Your task to perform on an android device: Add "razer blade" to the cart on walmart.com Image 0: 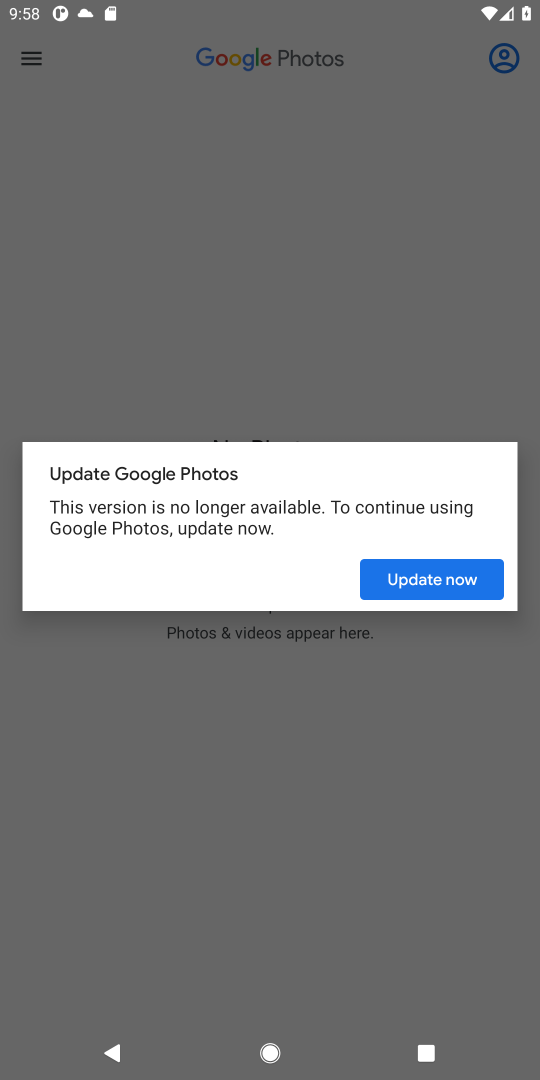
Step 0: press home button
Your task to perform on an android device: Add "razer blade" to the cart on walmart.com Image 1: 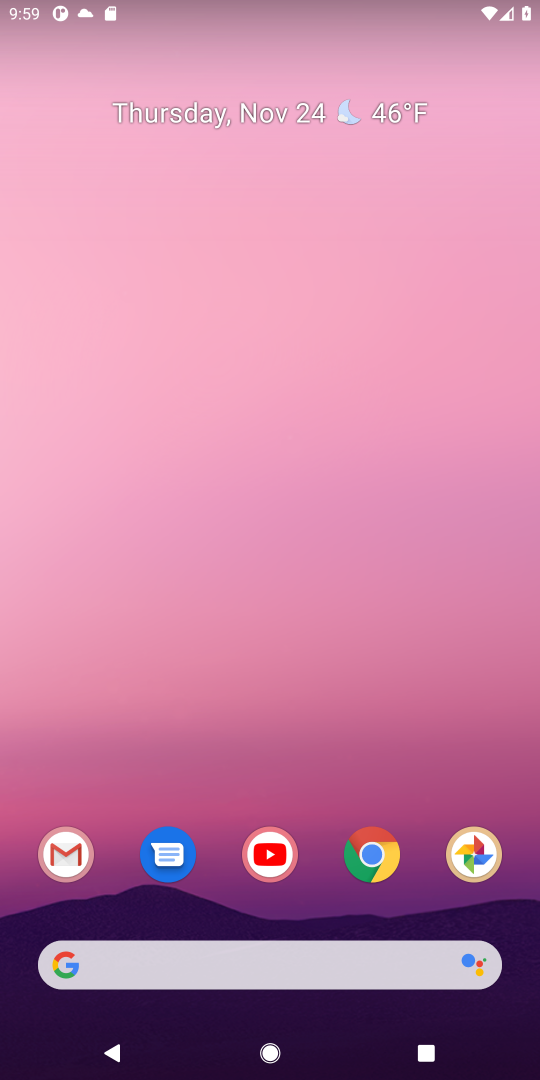
Step 1: click (381, 859)
Your task to perform on an android device: Add "razer blade" to the cart on walmart.com Image 2: 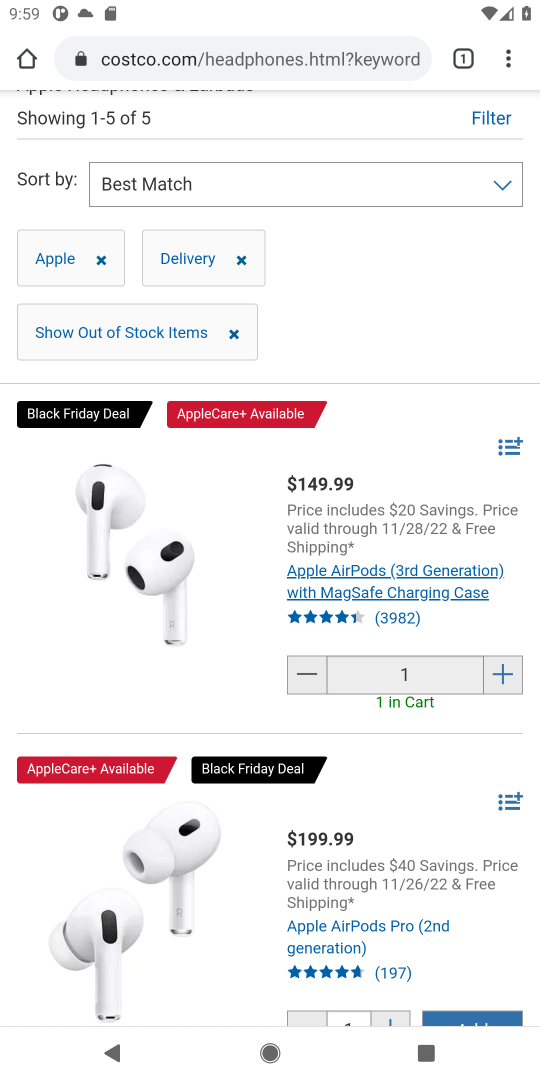
Step 2: click (210, 59)
Your task to perform on an android device: Add "razer blade" to the cart on walmart.com Image 3: 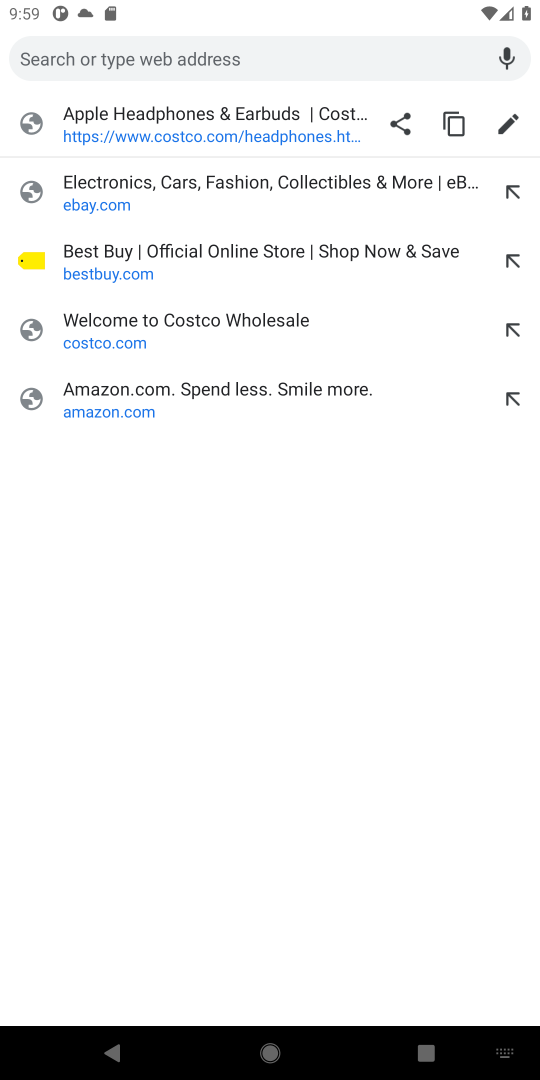
Step 3: type "walmart.com"
Your task to perform on an android device: Add "razer blade" to the cart on walmart.com Image 4: 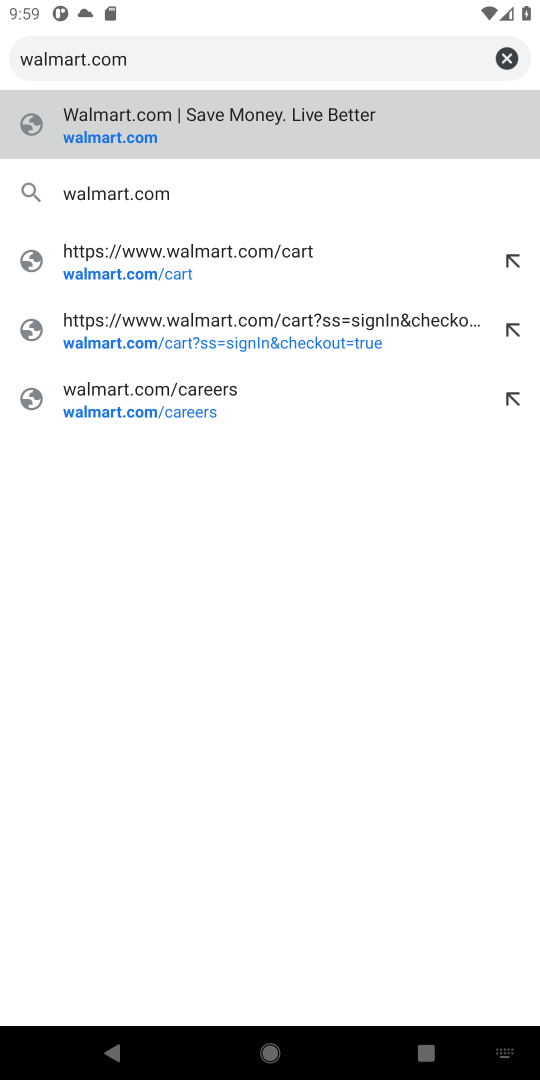
Step 4: click (104, 139)
Your task to perform on an android device: Add "razer blade" to the cart on walmart.com Image 5: 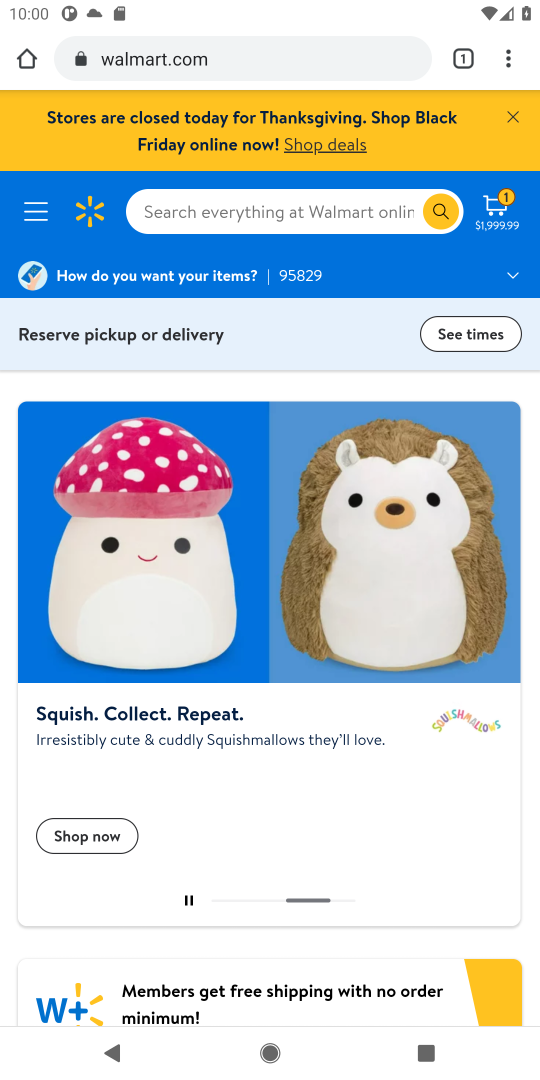
Step 5: click (300, 209)
Your task to perform on an android device: Add "razer blade" to the cart on walmart.com Image 6: 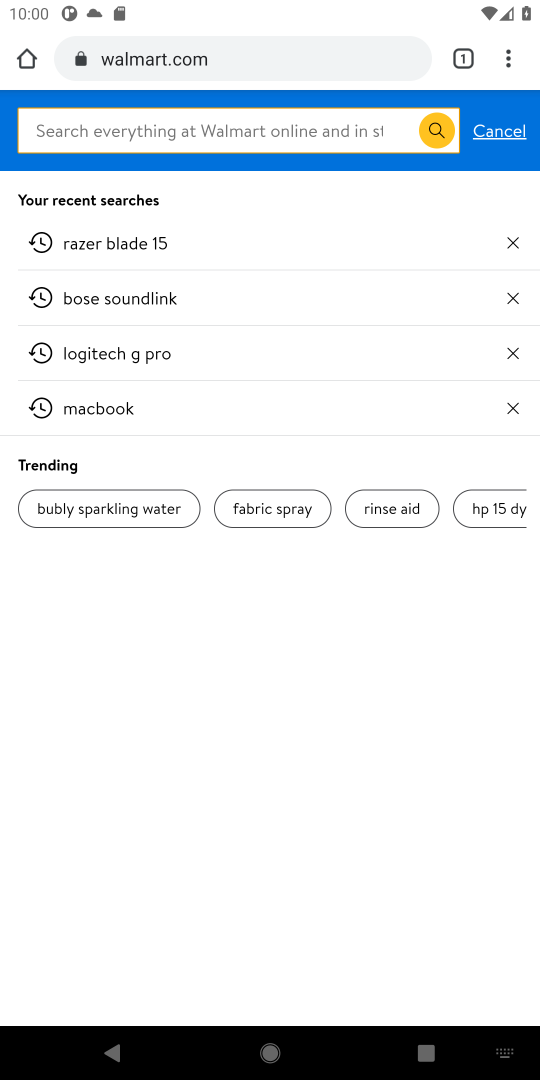
Step 6: type "razer blade"
Your task to perform on an android device: Add "razer blade" to the cart on walmart.com Image 7: 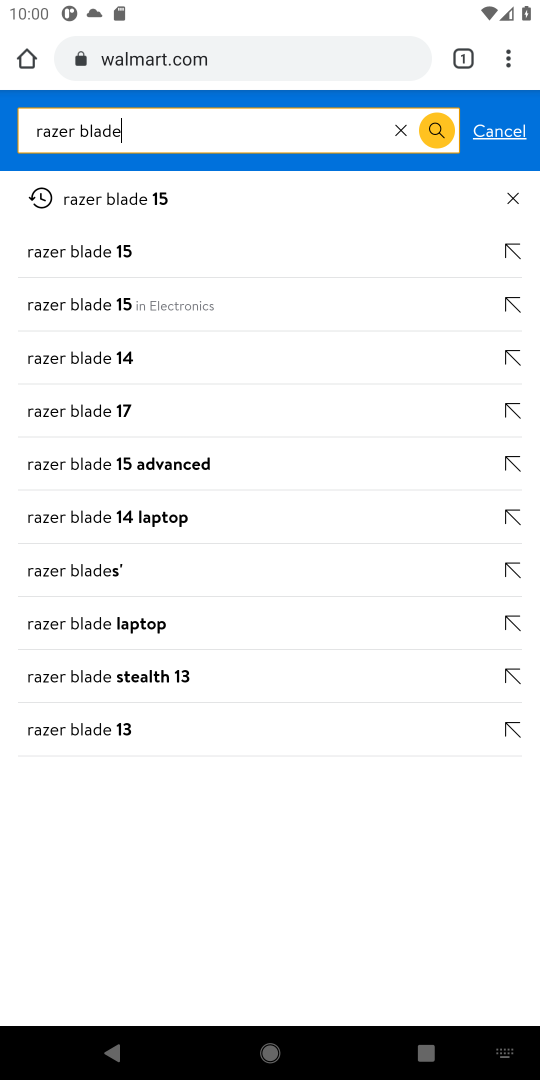
Step 7: click (116, 201)
Your task to perform on an android device: Add "razer blade" to the cart on walmart.com Image 8: 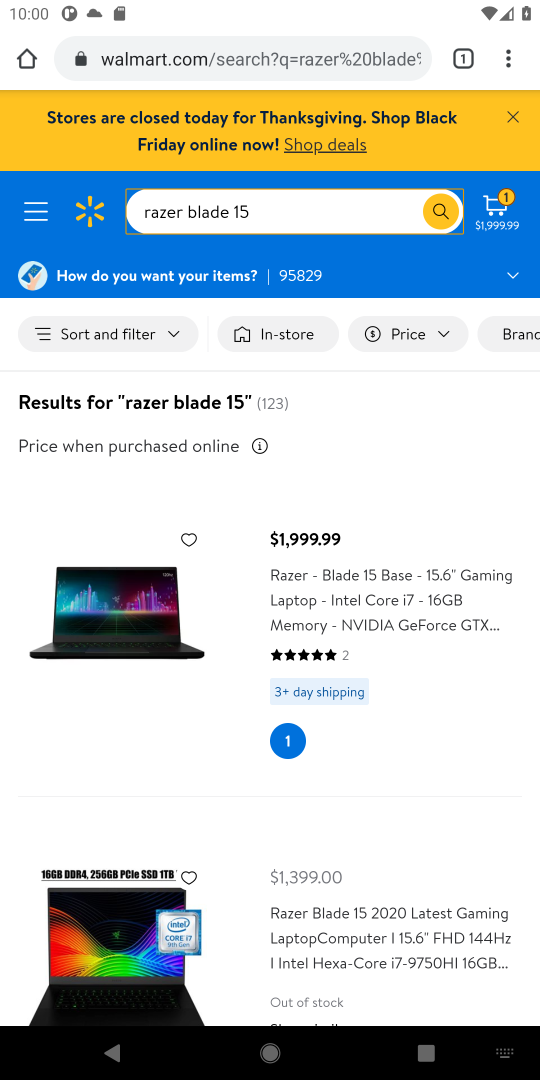
Step 8: click (178, 624)
Your task to perform on an android device: Add "razer blade" to the cart on walmart.com Image 9: 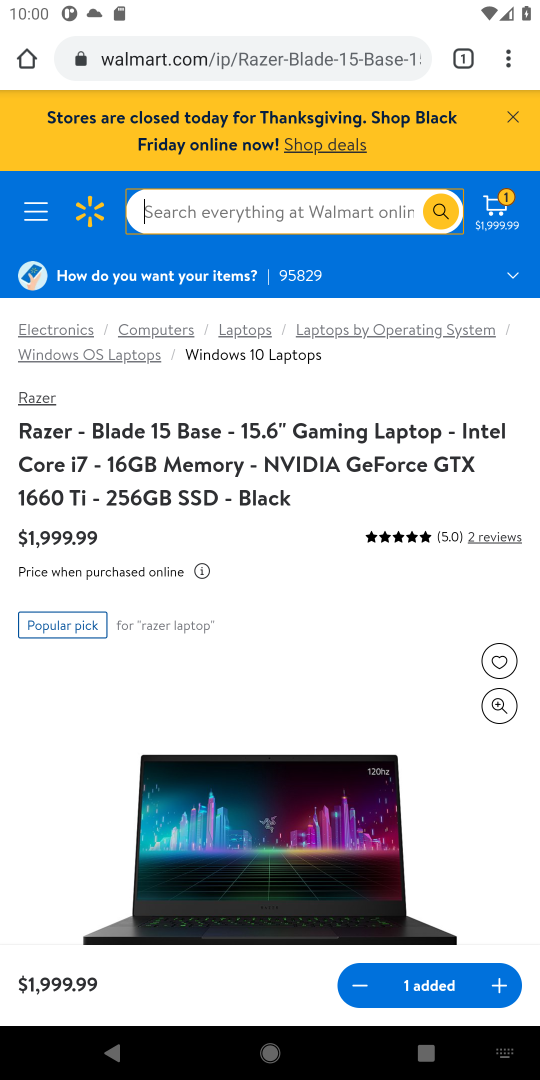
Step 9: click (495, 990)
Your task to perform on an android device: Add "razer blade" to the cart on walmart.com Image 10: 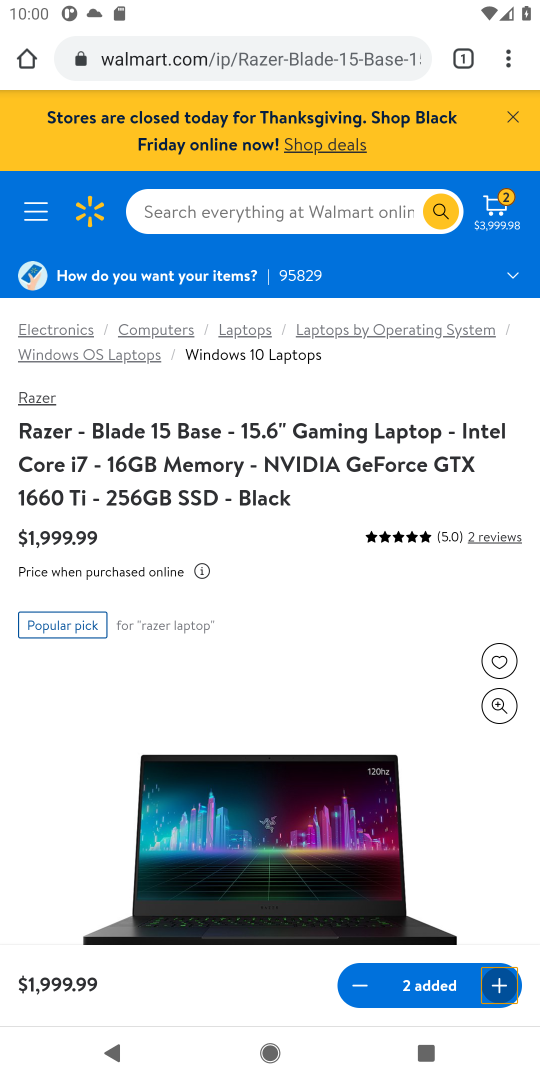
Step 10: task complete